Your task to perform on an android device: Open Chrome and go to the settings page Image 0: 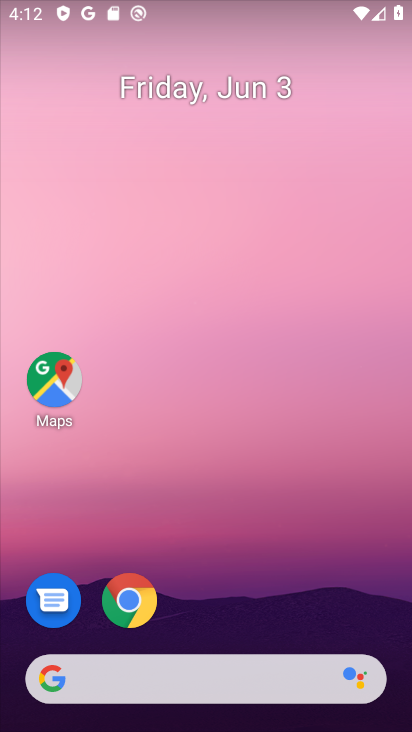
Step 0: click (139, 591)
Your task to perform on an android device: Open Chrome and go to the settings page Image 1: 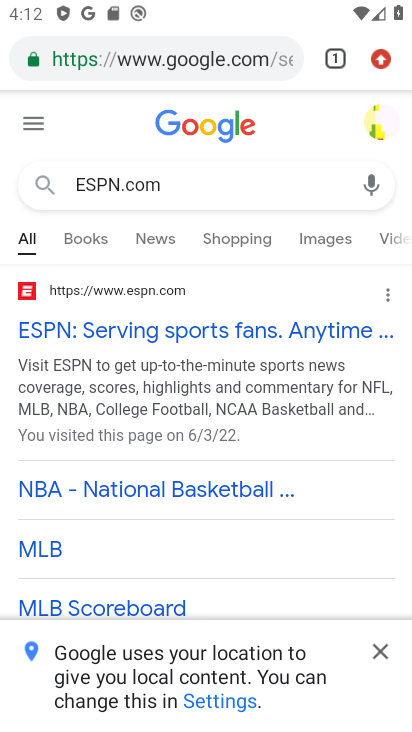
Step 1: drag from (334, 79) to (318, 413)
Your task to perform on an android device: Open Chrome and go to the settings page Image 2: 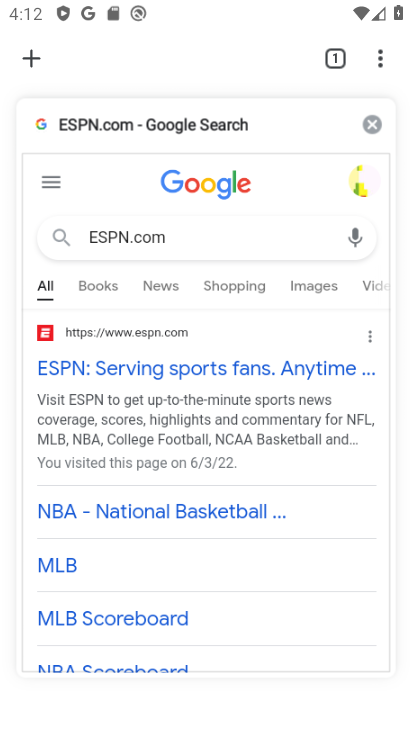
Step 2: click (379, 52)
Your task to perform on an android device: Open Chrome and go to the settings page Image 3: 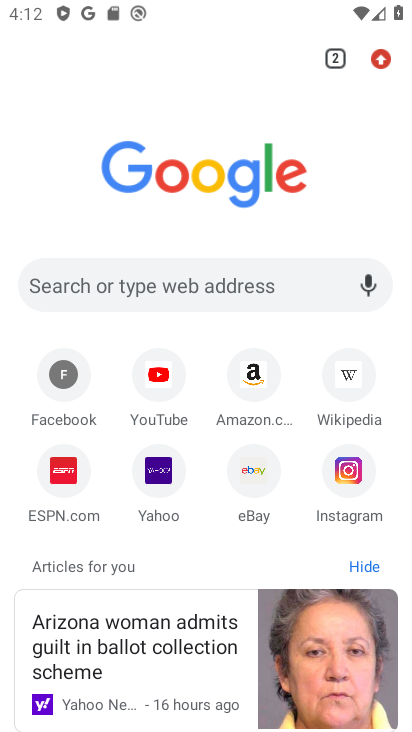
Step 3: click (378, 57)
Your task to perform on an android device: Open Chrome and go to the settings page Image 4: 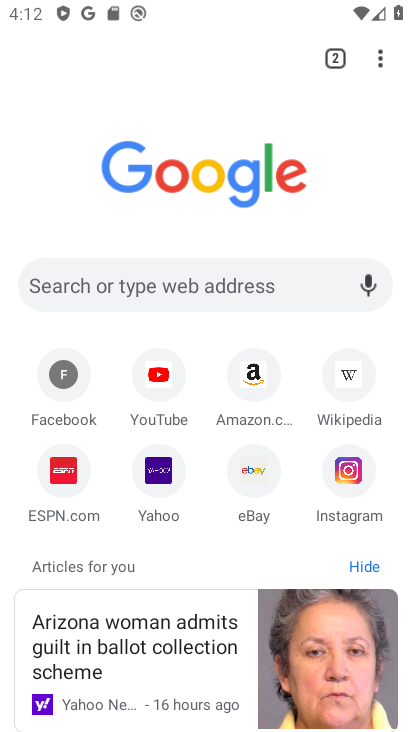
Step 4: click (382, 53)
Your task to perform on an android device: Open Chrome and go to the settings page Image 5: 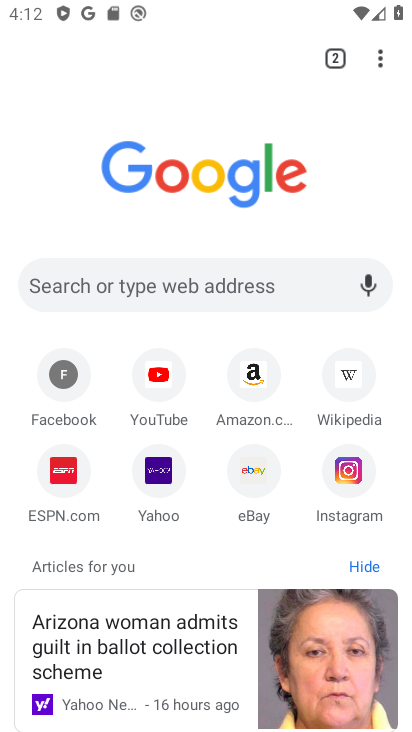
Step 5: click (372, 56)
Your task to perform on an android device: Open Chrome and go to the settings page Image 6: 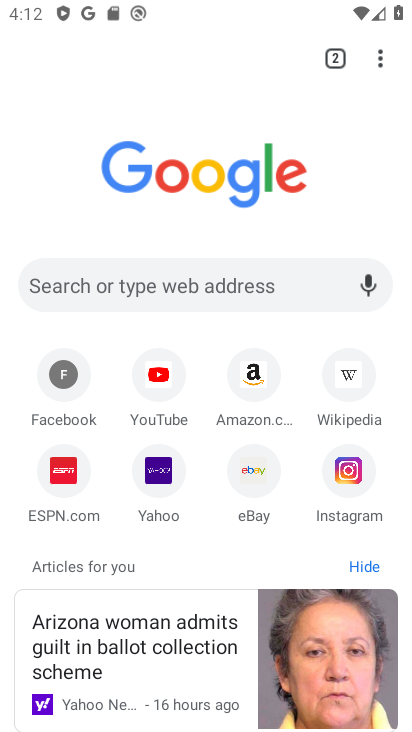
Step 6: click (381, 55)
Your task to perform on an android device: Open Chrome and go to the settings page Image 7: 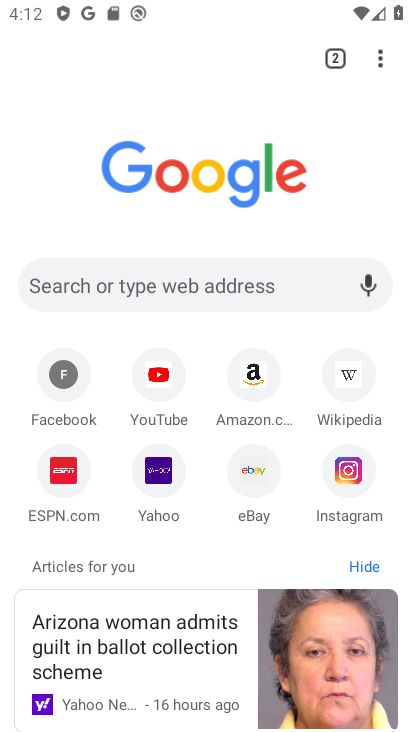
Step 7: click (381, 55)
Your task to perform on an android device: Open Chrome and go to the settings page Image 8: 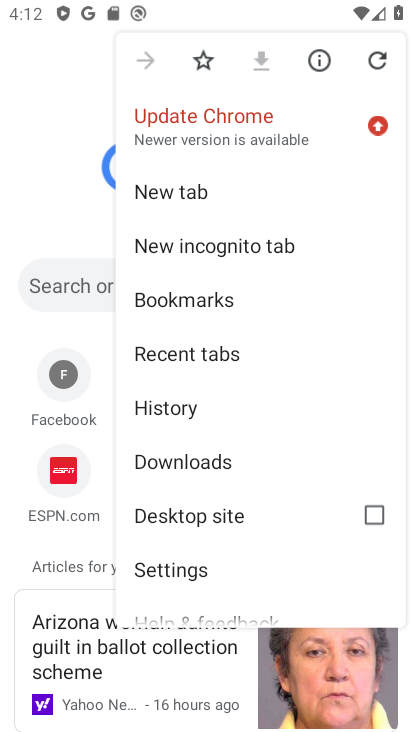
Step 8: click (170, 568)
Your task to perform on an android device: Open Chrome and go to the settings page Image 9: 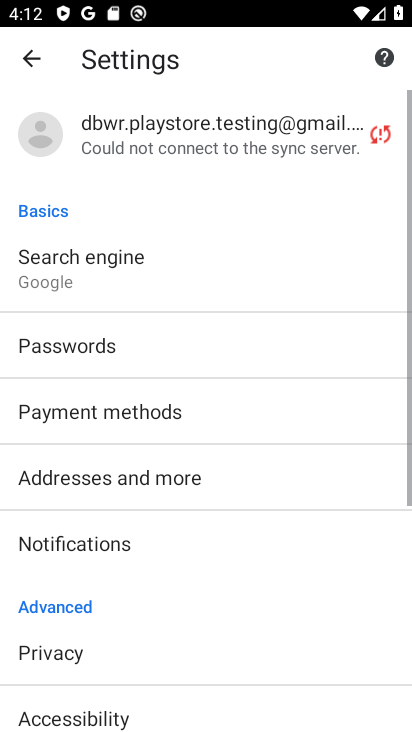
Step 9: drag from (239, 622) to (226, 225)
Your task to perform on an android device: Open Chrome and go to the settings page Image 10: 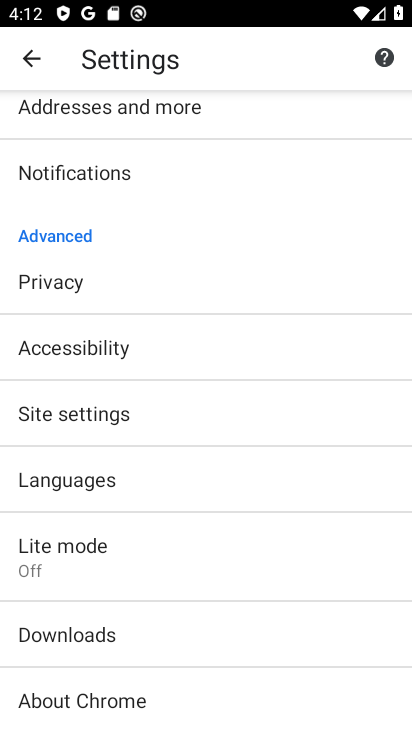
Step 10: click (241, 244)
Your task to perform on an android device: Open Chrome and go to the settings page Image 11: 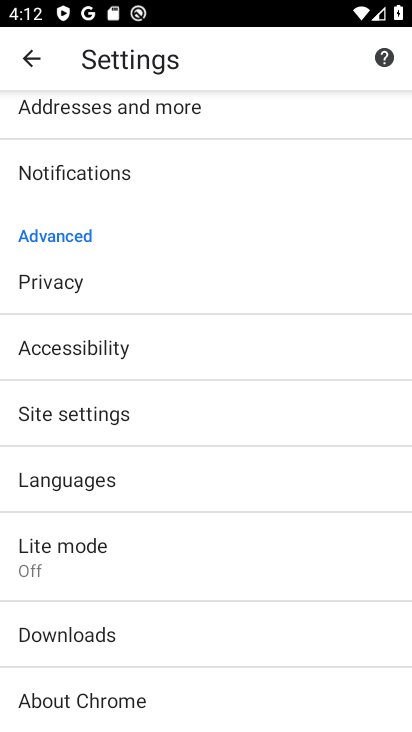
Step 11: task complete